Your task to perform on an android device: Go to eBay Image 0: 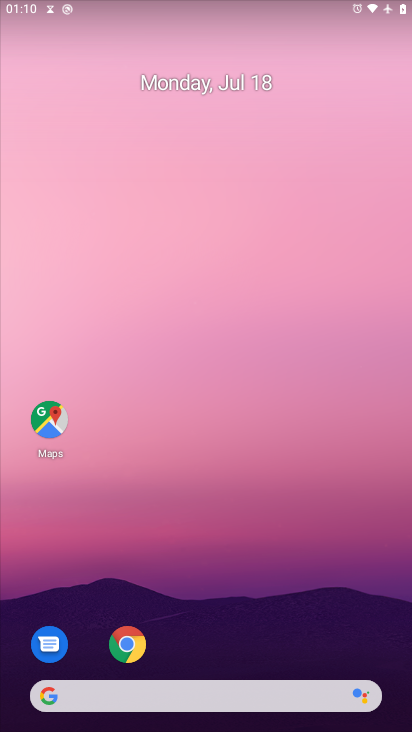
Step 0: press home button
Your task to perform on an android device: Go to eBay Image 1: 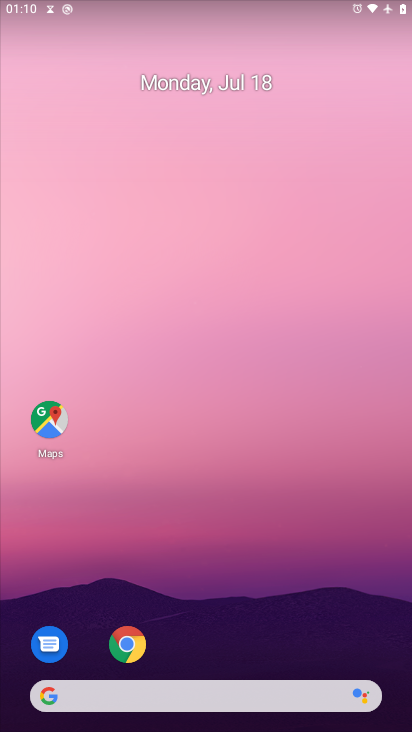
Step 1: click (44, 695)
Your task to perform on an android device: Go to eBay Image 2: 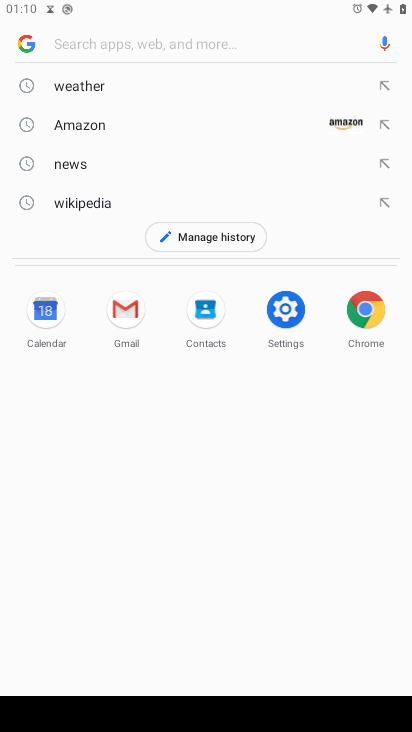
Step 2: type "eBay"
Your task to perform on an android device: Go to eBay Image 3: 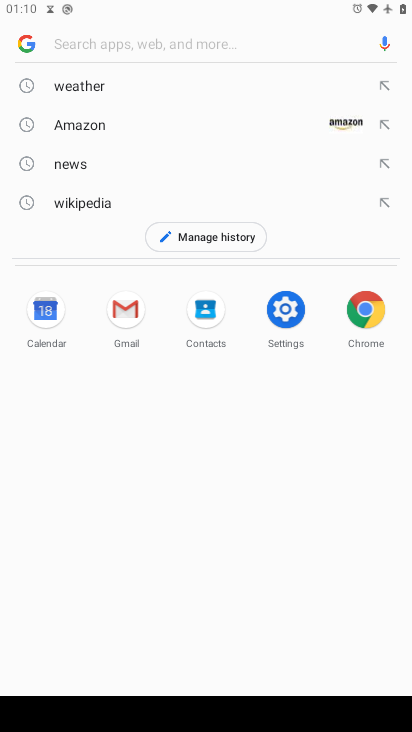
Step 3: click (189, 28)
Your task to perform on an android device: Go to eBay Image 4: 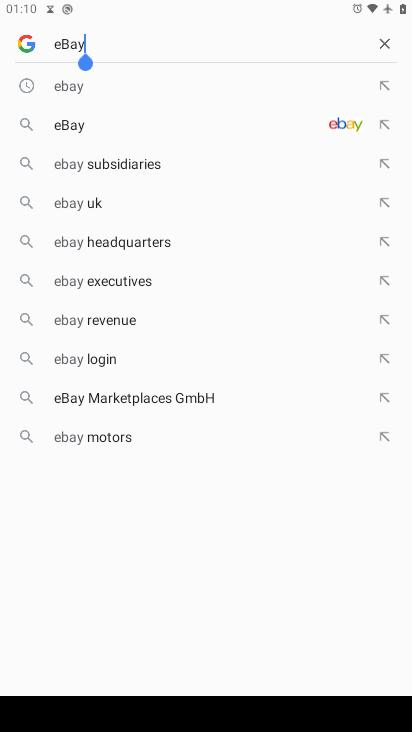
Step 4: click (66, 86)
Your task to perform on an android device: Go to eBay Image 5: 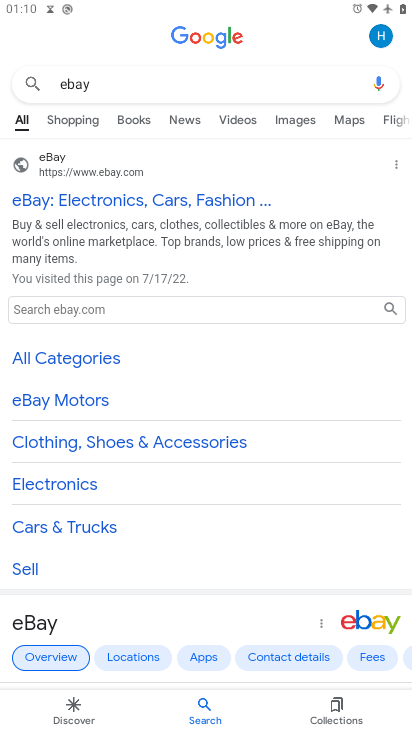
Step 5: click (130, 203)
Your task to perform on an android device: Go to eBay Image 6: 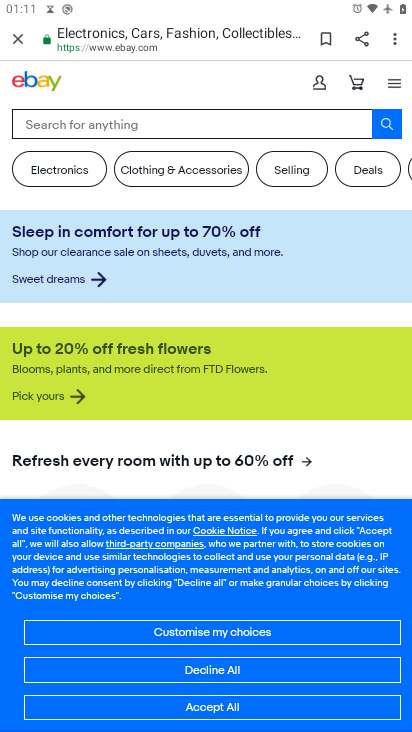
Step 6: task complete